Your task to perform on an android device: Open notification settings Image 0: 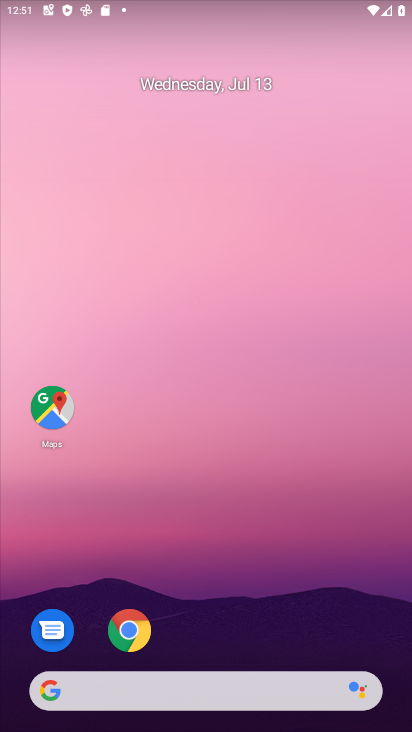
Step 0: drag from (393, 679) to (196, 6)
Your task to perform on an android device: Open notification settings Image 1: 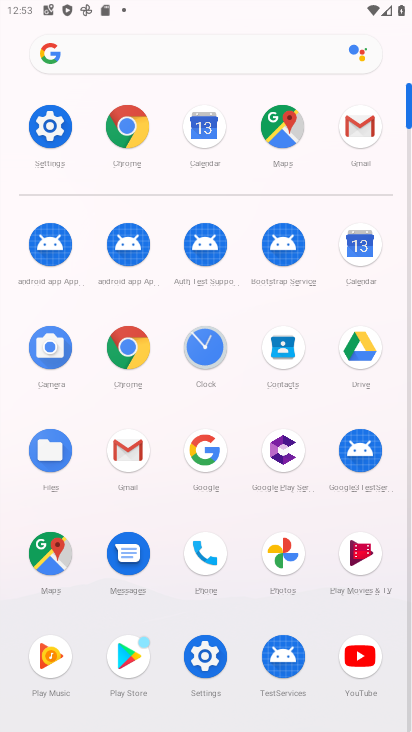
Step 1: click (59, 134)
Your task to perform on an android device: Open notification settings Image 2: 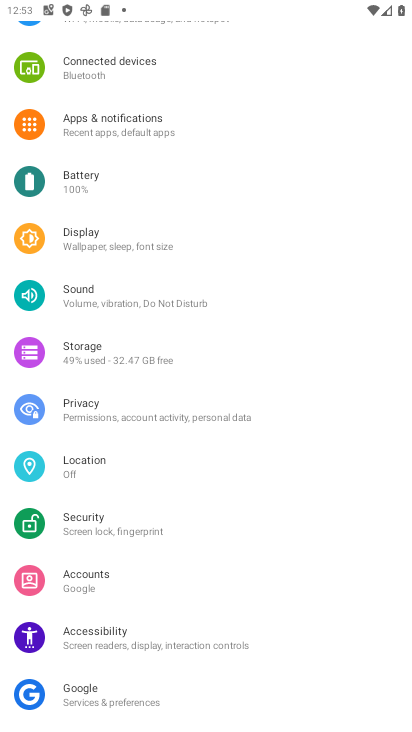
Step 2: click (126, 125)
Your task to perform on an android device: Open notification settings Image 3: 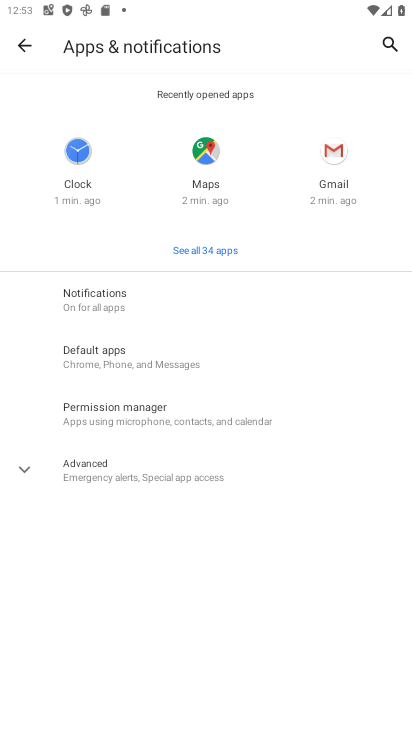
Step 3: click (115, 298)
Your task to perform on an android device: Open notification settings Image 4: 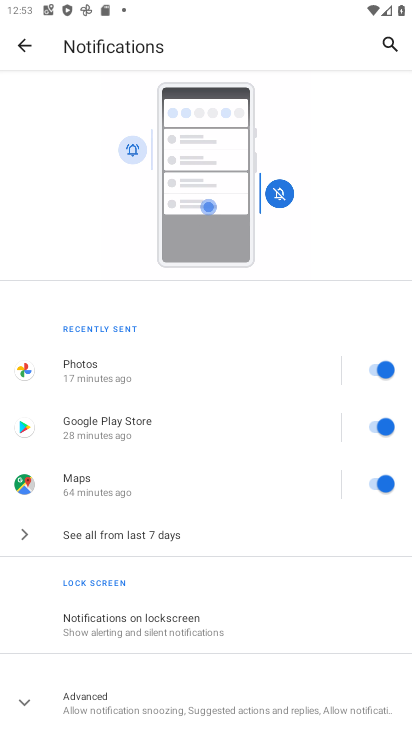
Step 4: task complete